Your task to perform on an android device: Open settings Image 0: 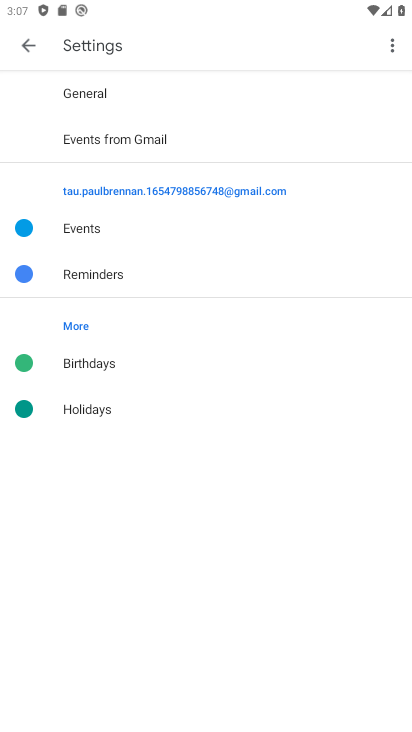
Step 0: press home button
Your task to perform on an android device: Open settings Image 1: 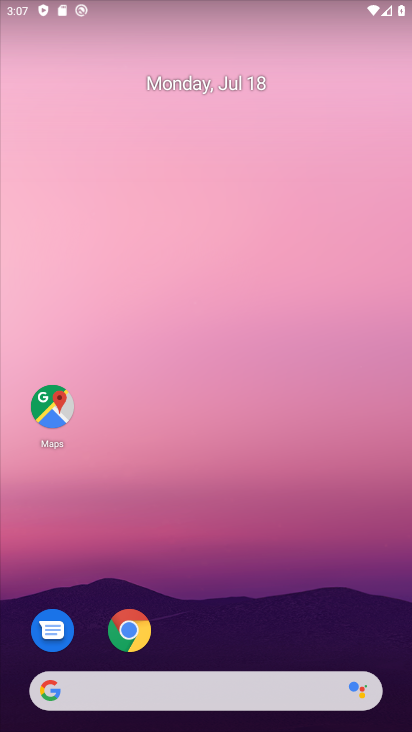
Step 1: drag from (237, 605) to (262, 112)
Your task to perform on an android device: Open settings Image 2: 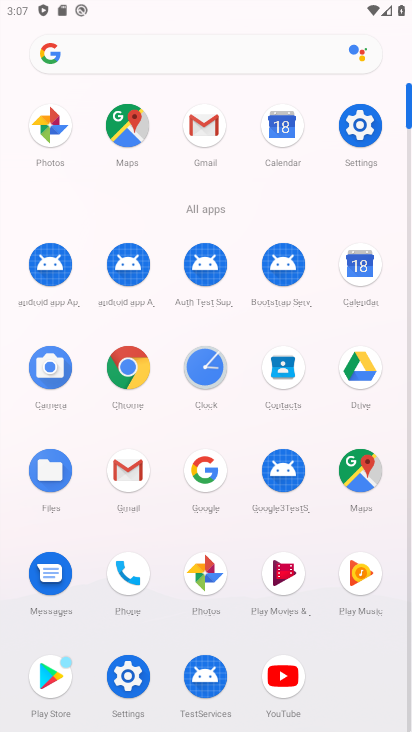
Step 2: click (124, 682)
Your task to perform on an android device: Open settings Image 3: 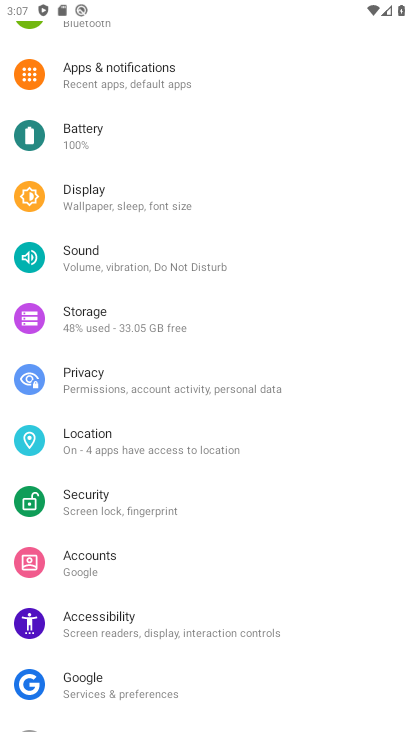
Step 3: task complete